Your task to perform on an android device: see creations saved in the google photos Image 0: 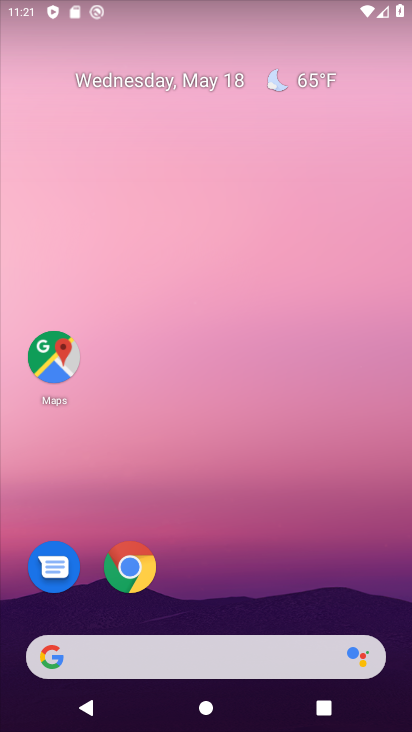
Step 0: drag from (231, 570) to (173, 176)
Your task to perform on an android device: see creations saved in the google photos Image 1: 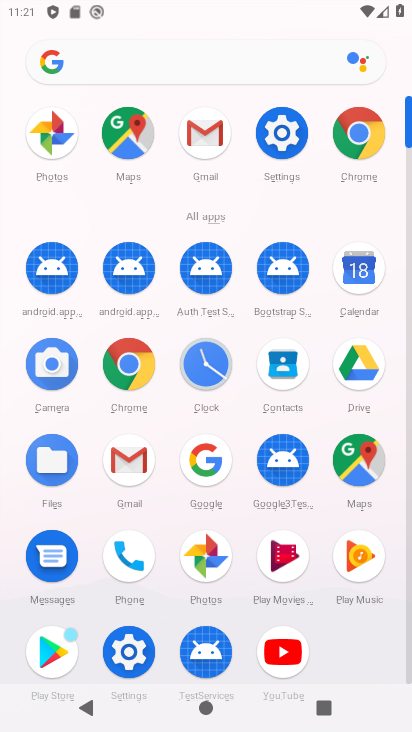
Step 1: click (198, 553)
Your task to perform on an android device: see creations saved in the google photos Image 2: 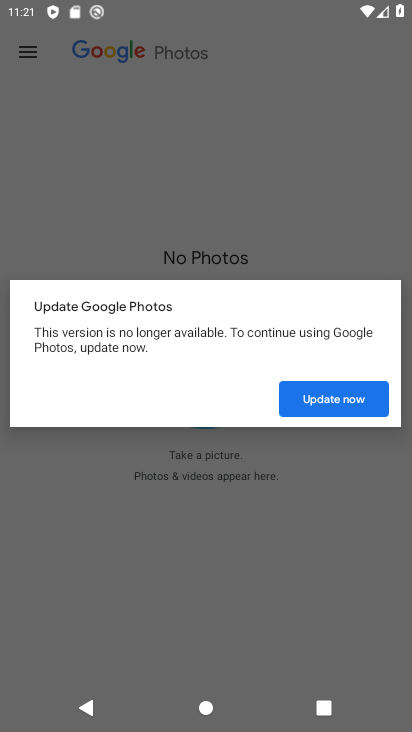
Step 2: click (309, 405)
Your task to perform on an android device: see creations saved in the google photos Image 3: 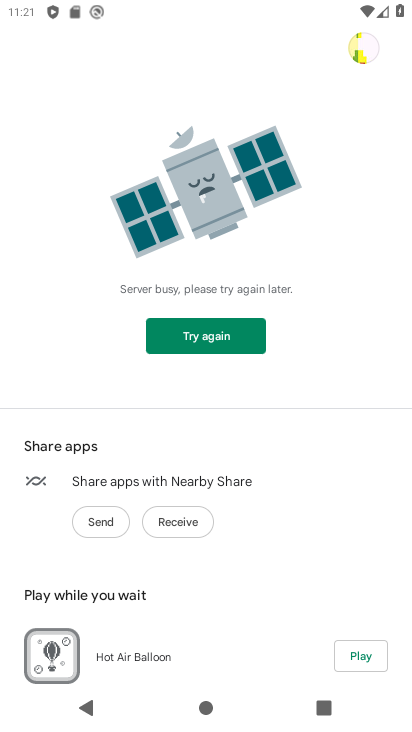
Step 3: click (201, 340)
Your task to perform on an android device: see creations saved in the google photos Image 4: 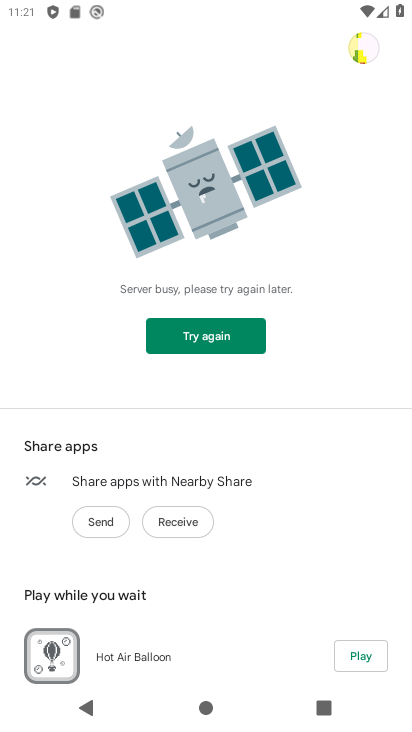
Step 4: click (201, 340)
Your task to perform on an android device: see creations saved in the google photos Image 5: 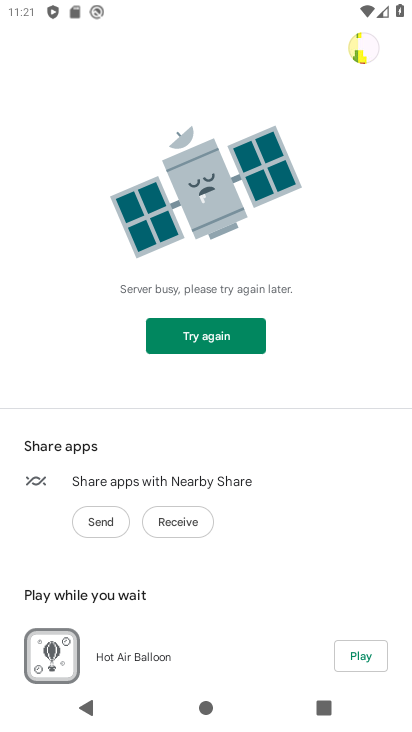
Step 5: task complete